Your task to perform on an android device: Go to settings Image 0: 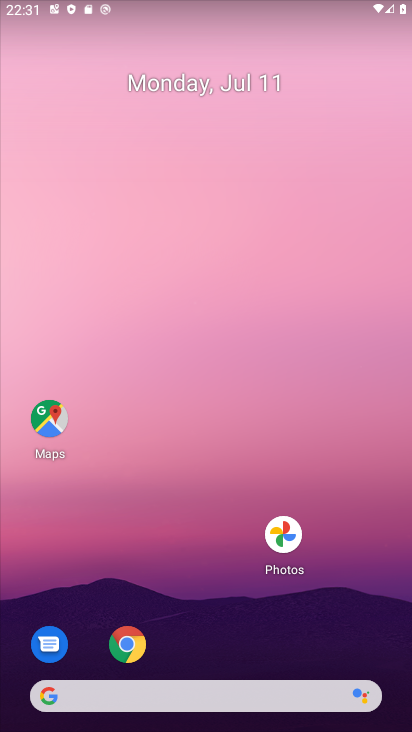
Step 0: drag from (260, 708) to (226, 122)
Your task to perform on an android device: Go to settings Image 1: 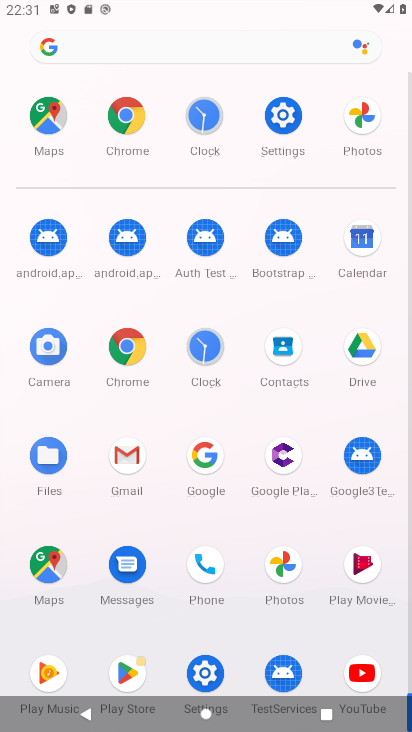
Step 1: click (283, 137)
Your task to perform on an android device: Go to settings Image 2: 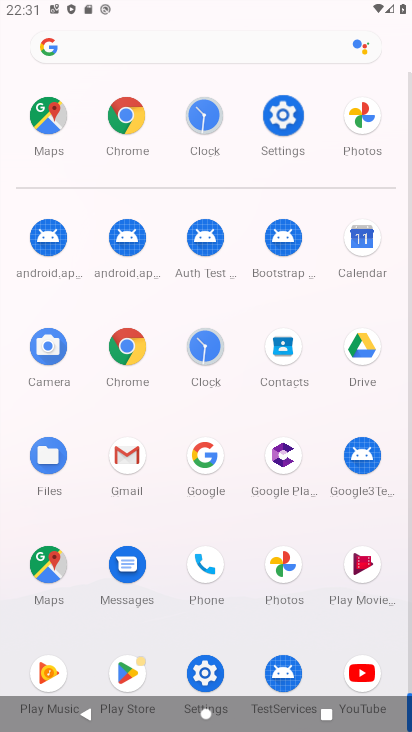
Step 2: click (282, 137)
Your task to perform on an android device: Go to settings Image 3: 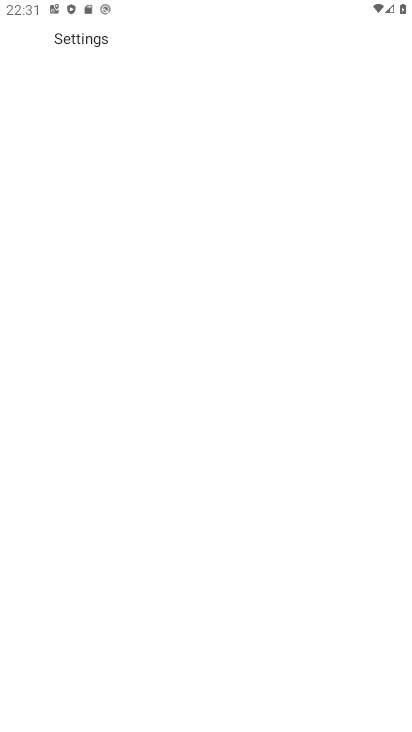
Step 3: click (282, 137)
Your task to perform on an android device: Go to settings Image 4: 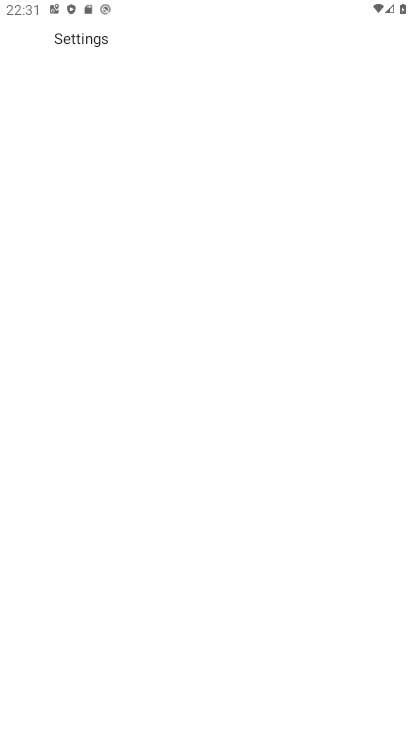
Step 4: click (281, 137)
Your task to perform on an android device: Go to settings Image 5: 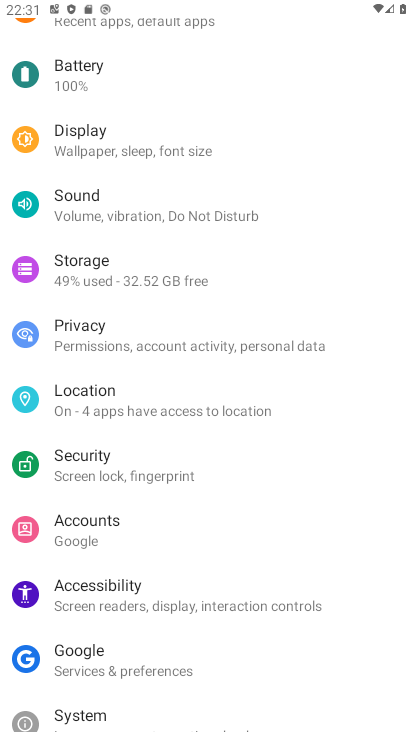
Step 5: task complete